Your task to perform on an android device: check data usage Image 0: 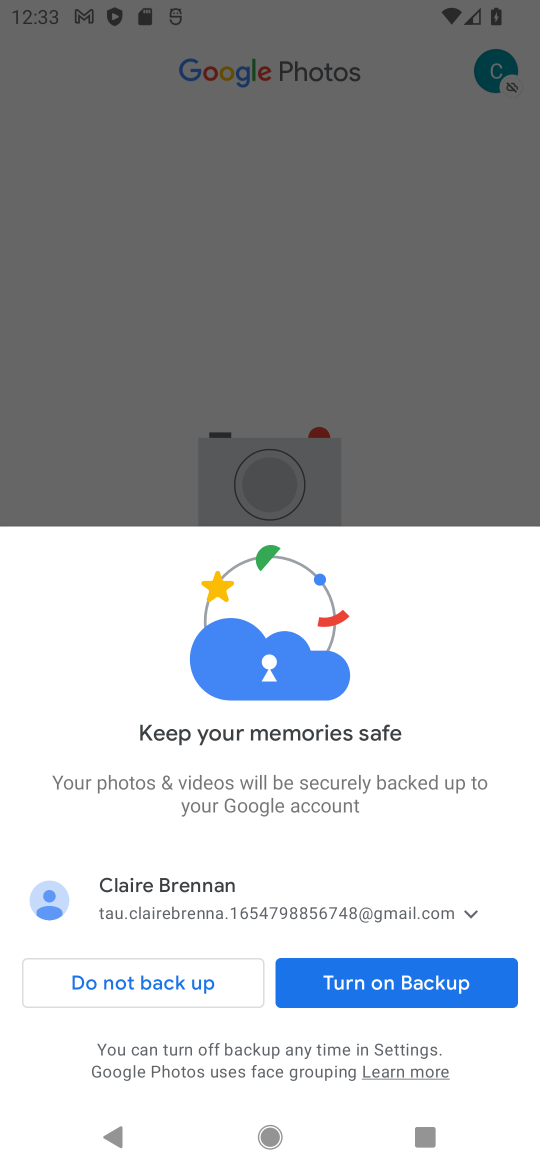
Step 0: press home button
Your task to perform on an android device: check data usage Image 1: 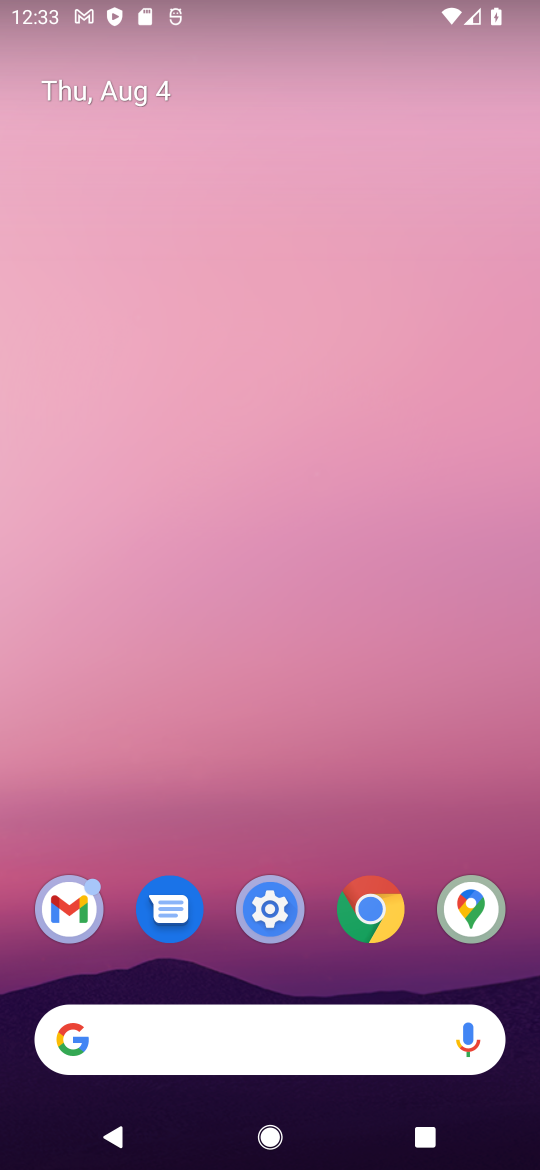
Step 1: drag from (190, 1025) to (242, 39)
Your task to perform on an android device: check data usage Image 2: 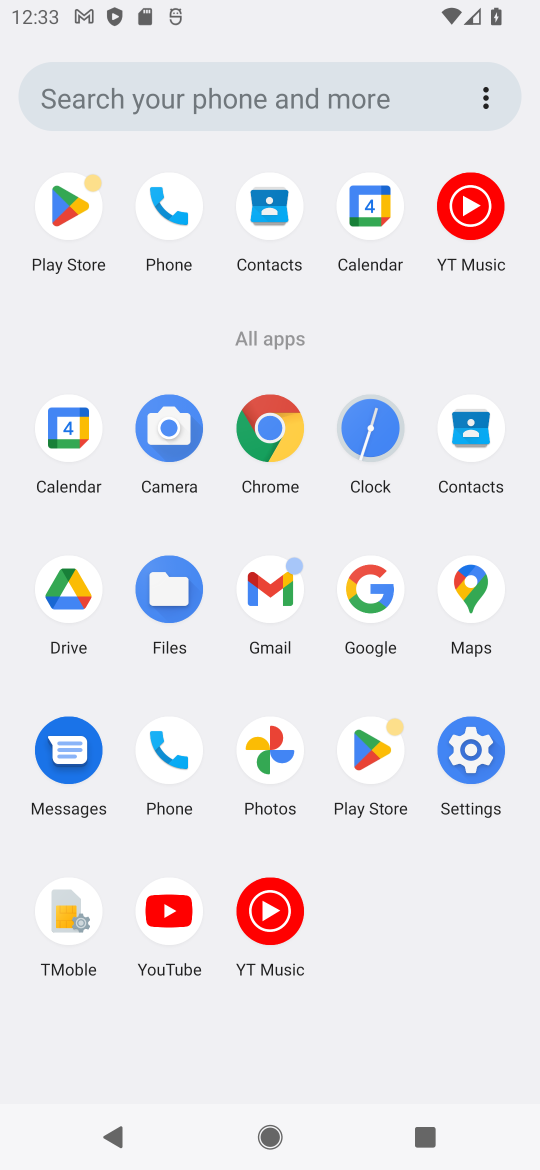
Step 2: click (484, 756)
Your task to perform on an android device: check data usage Image 3: 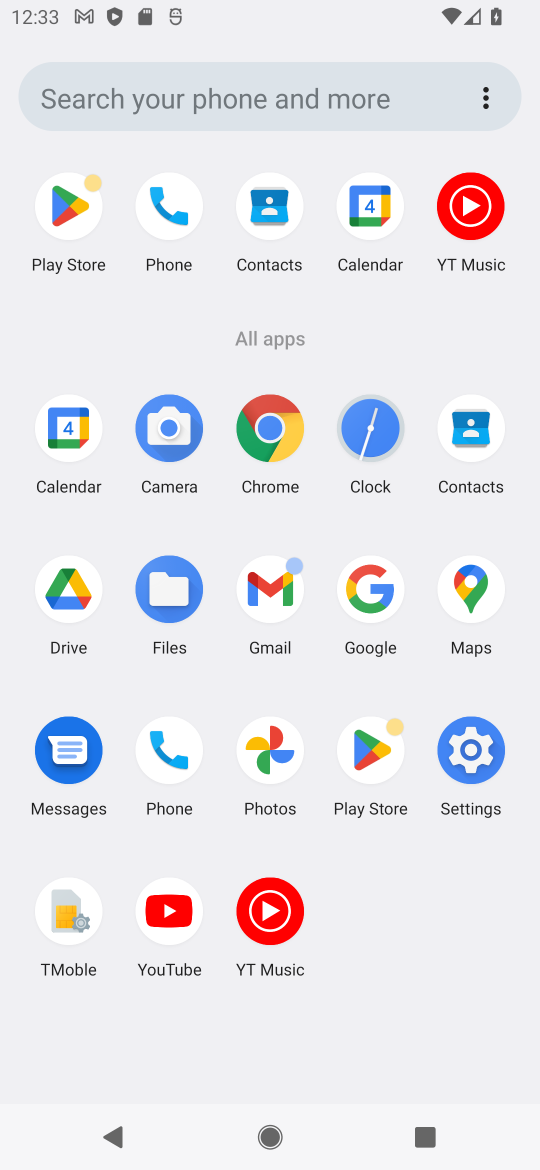
Step 3: click (484, 756)
Your task to perform on an android device: check data usage Image 4: 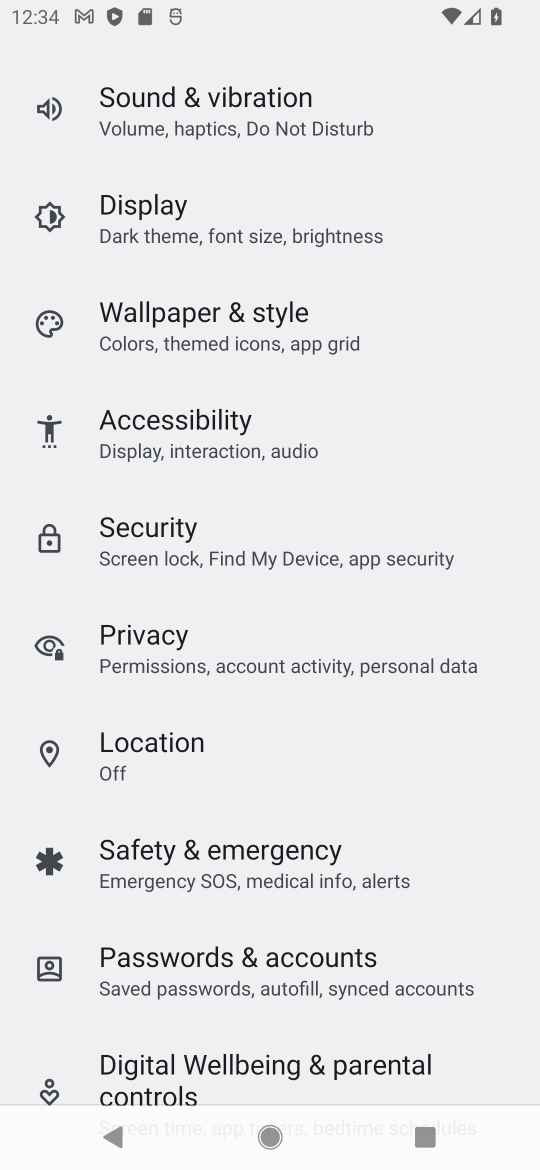
Step 4: drag from (344, 214) to (359, 1046)
Your task to perform on an android device: check data usage Image 5: 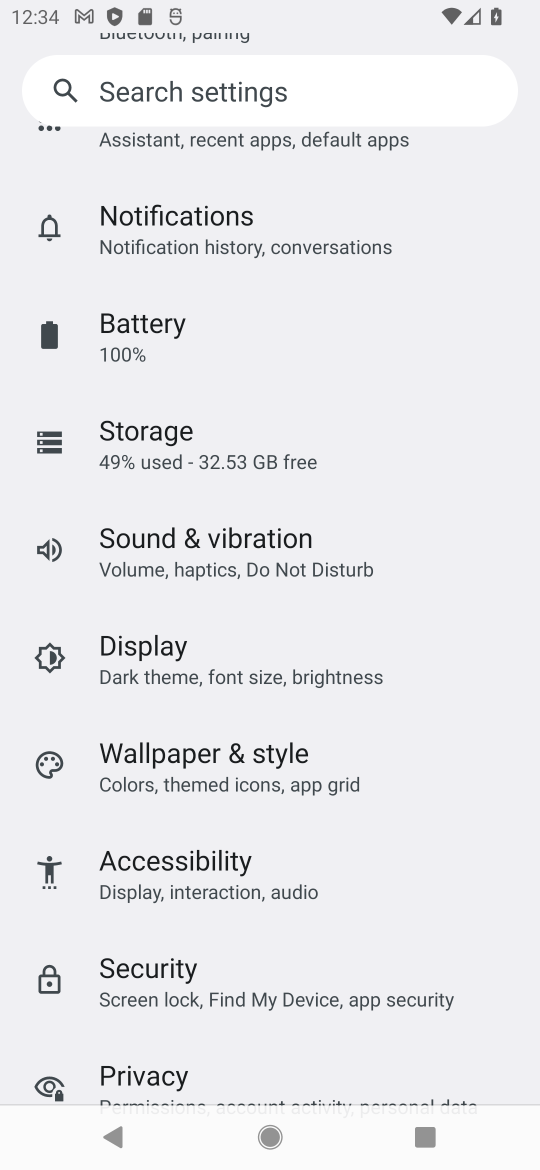
Step 5: drag from (410, 210) to (467, 1108)
Your task to perform on an android device: check data usage Image 6: 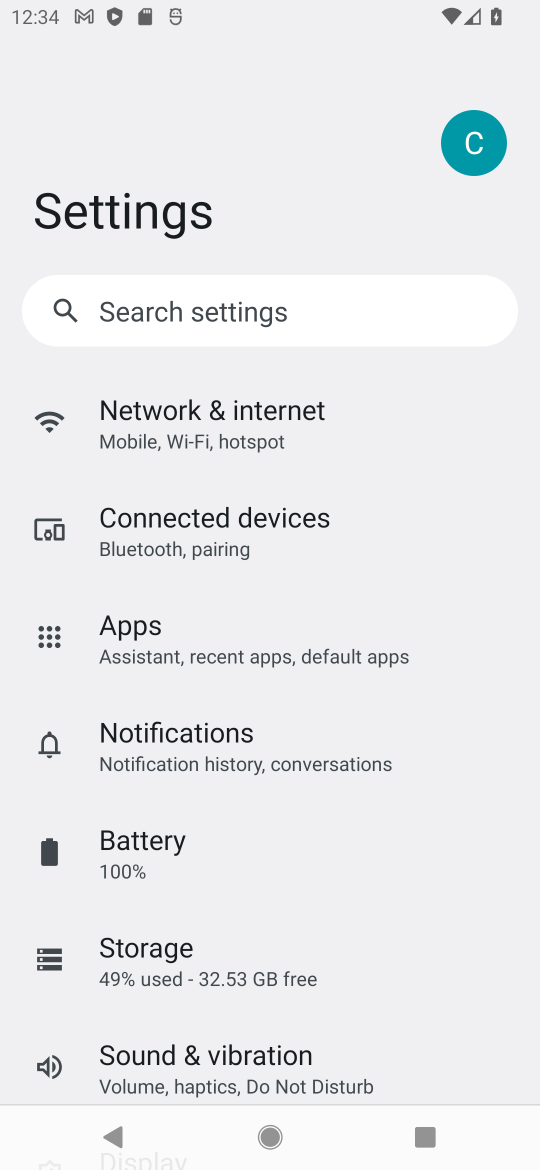
Step 6: click (288, 414)
Your task to perform on an android device: check data usage Image 7: 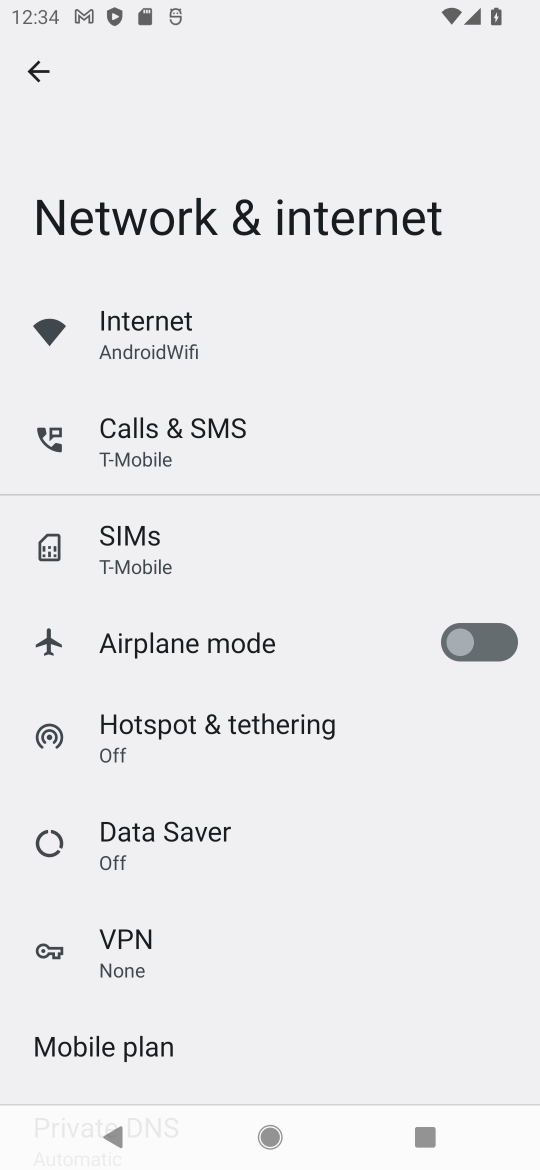
Step 7: click (223, 551)
Your task to perform on an android device: check data usage Image 8: 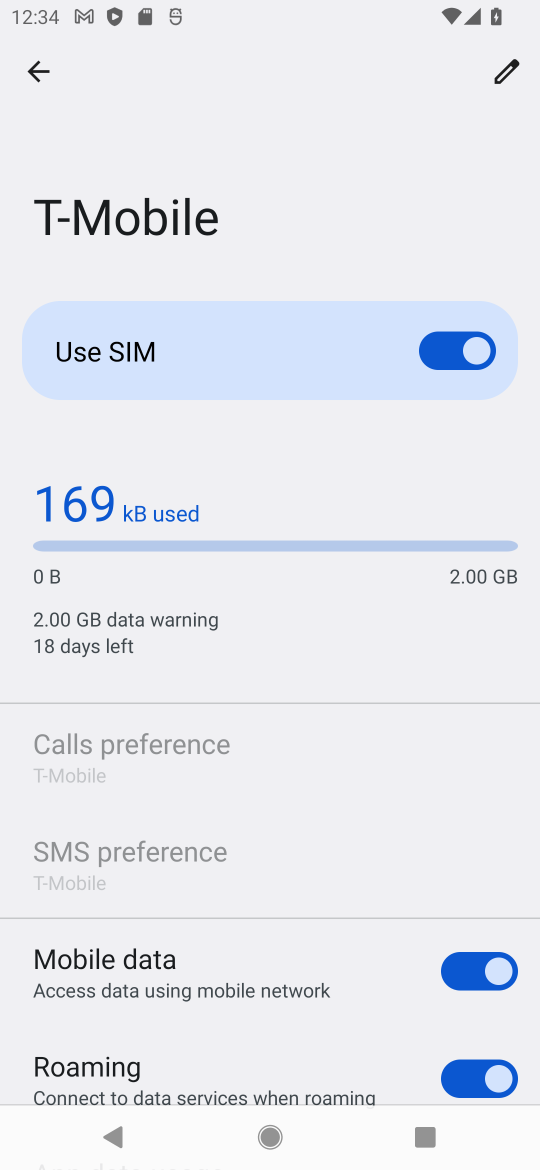
Step 8: click (51, 70)
Your task to perform on an android device: check data usage Image 9: 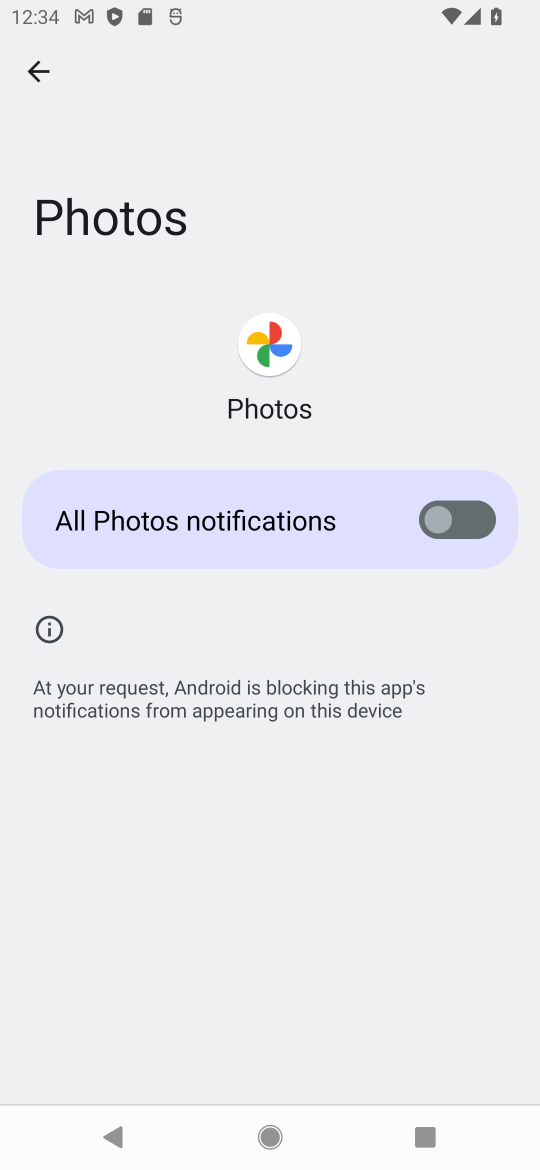
Step 9: task complete